Your task to perform on an android device: Play the last video I watched on Youtube Image 0: 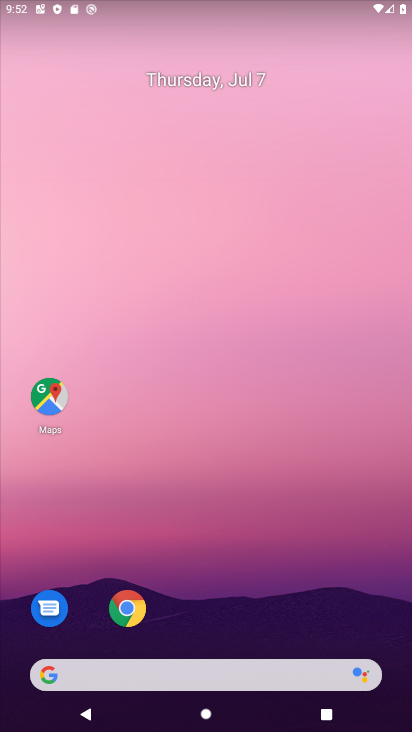
Step 0: drag from (234, 604) to (240, 77)
Your task to perform on an android device: Play the last video I watched on Youtube Image 1: 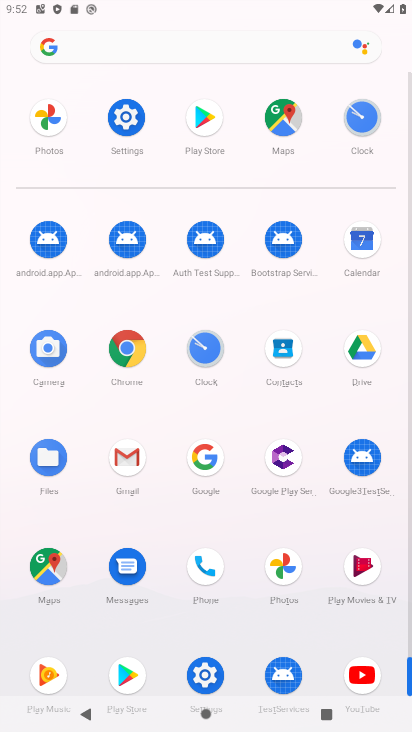
Step 1: click (357, 670)
Your task to perform on an android device: Play the last video I watched on Youtube Image 2: 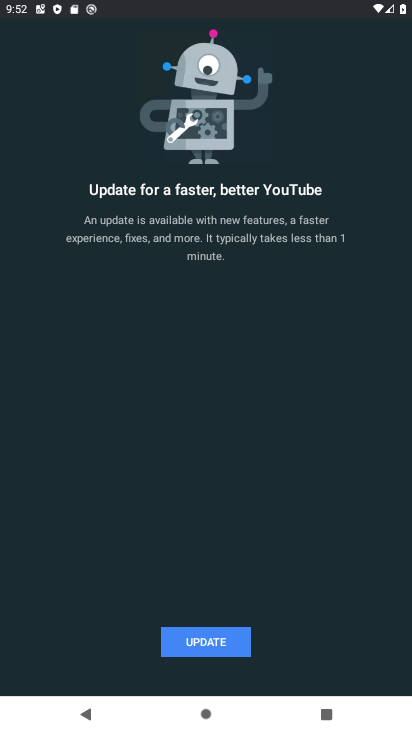
Step 2: click (210, 645)
Your task to perform on an android device: Play the last video I watched on Youtube Image 3: 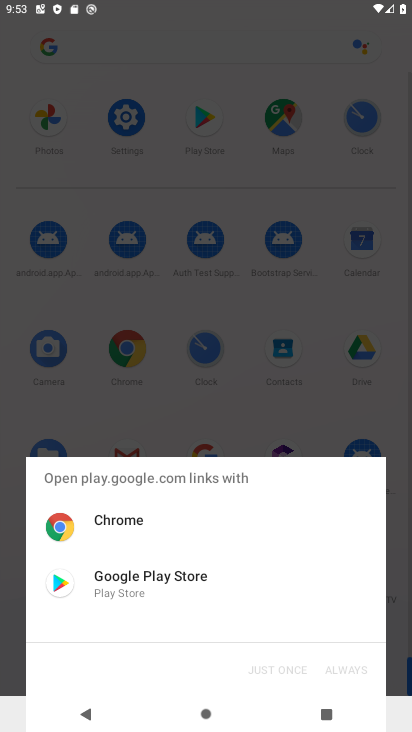
Step 3: click (139, 582)
Your task to perform on an android device: Play the last video I watched on Youtube Image 4: 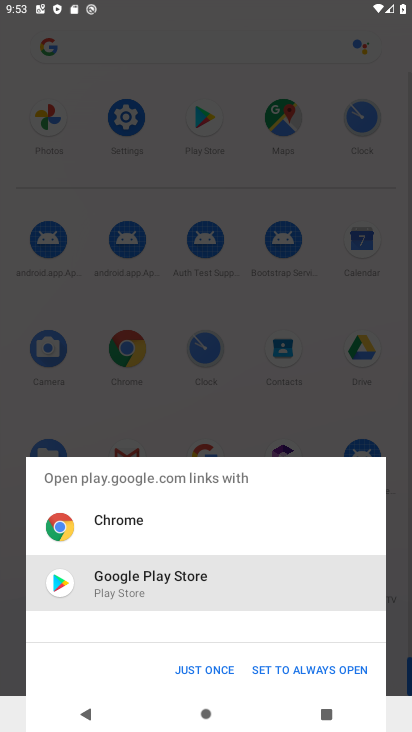
Step 4: click (193, 666)
Your task to perform on an android device: Play the last video I watched on Youtube Image 5: 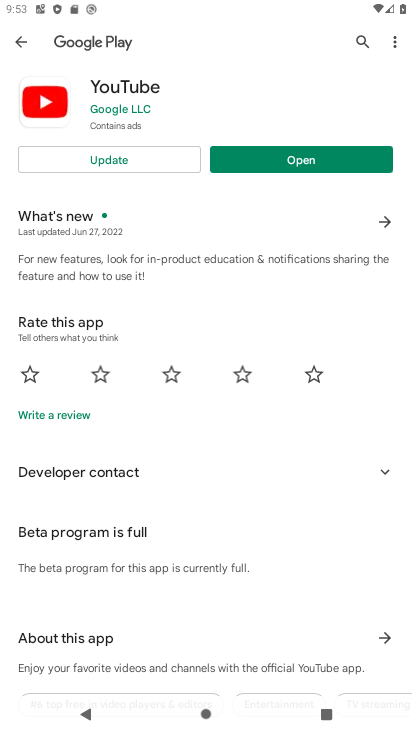
Step 5: click (124, 159)
Your task to perform on an android device: Play the last video I watched on Youtube Image 6: 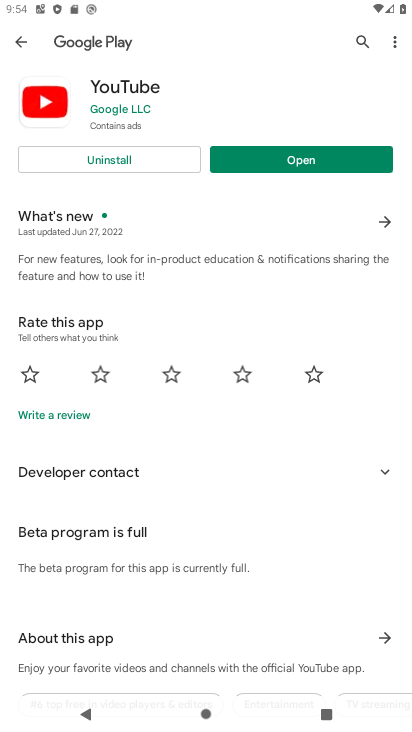
Step 6: click (292, 158)
Your task to perform on an android device: Play the last video I watched on Youtube Image 7: 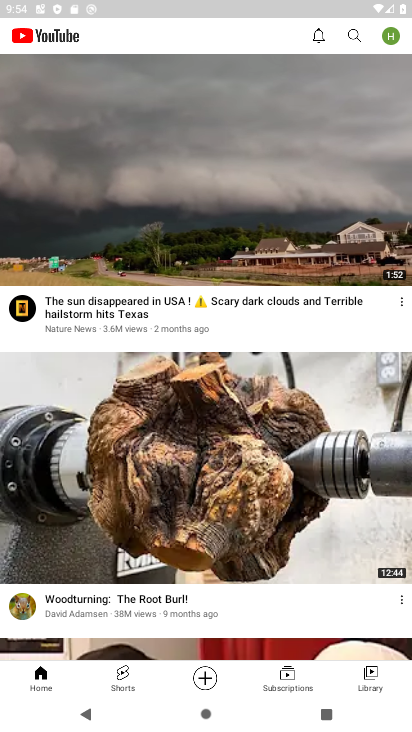
Step 7: click (349, 35)
Your task to perform on an android device: Play the last video I watched on Youtube Image 8: 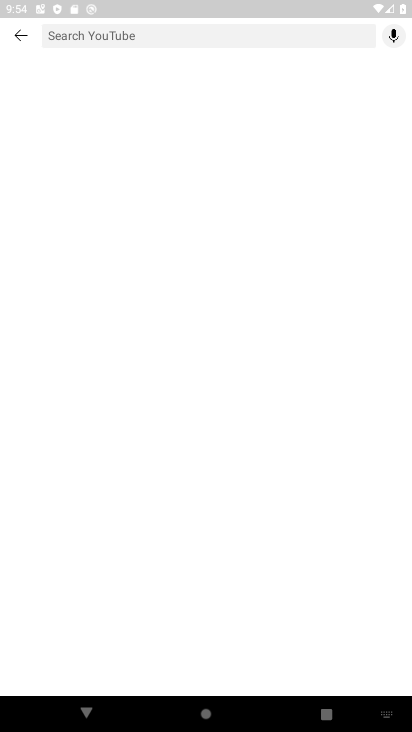
Step 8: click (176, 42)
Your task to perform on an android device: Play the last video I watched on Youtube Image 9: 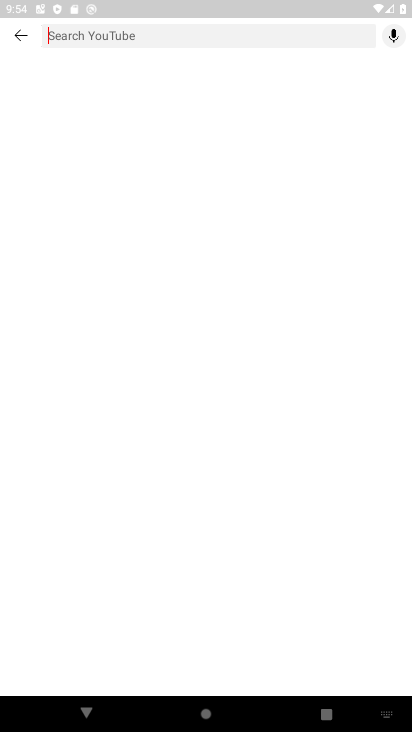
Step 9: task complete